Your task to perform on an android device: open wifi settings Image 0: 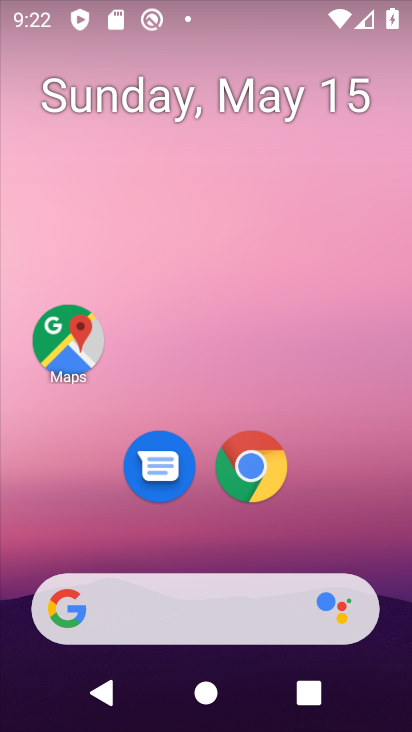
Step 0: drag from (335, 547) to (264, 116)
Your task to perform on an android device: open wifi settings Image 1: 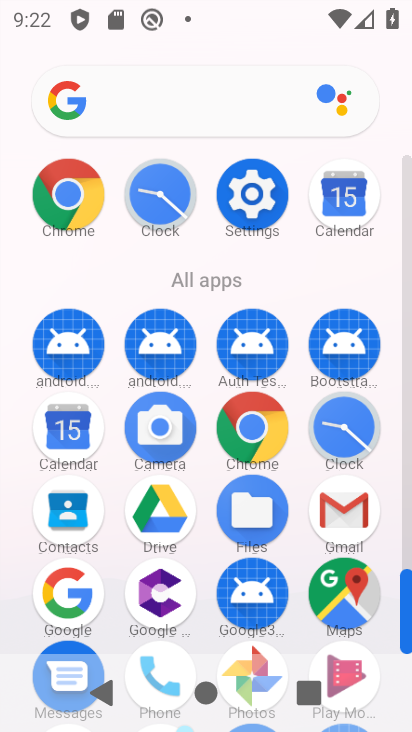
Step 1: click (256, 188)
Your task to perform on an android device: open wifi settings Image 2: 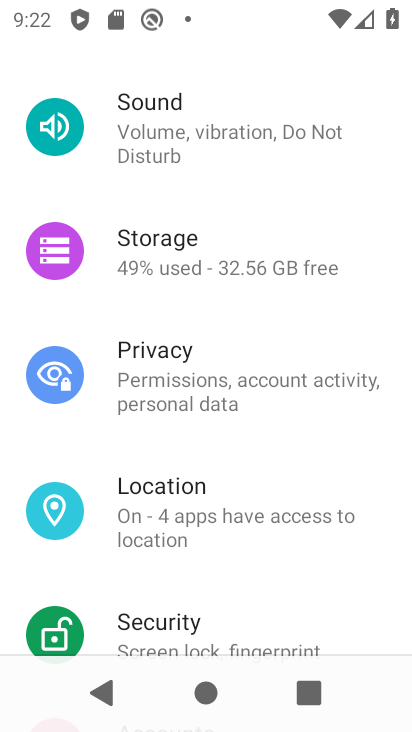
Step 2: drag from (247, 585) to (211, 52)
Your task to perform on an android device: open wifi settings Image 3: 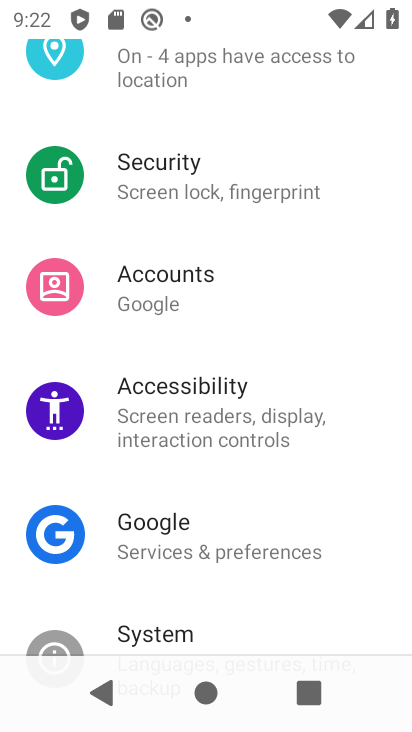
Step 3: drag from (214, 91) to (404, 721)
Your task to perform on an android device: open wifi settings Image 4: 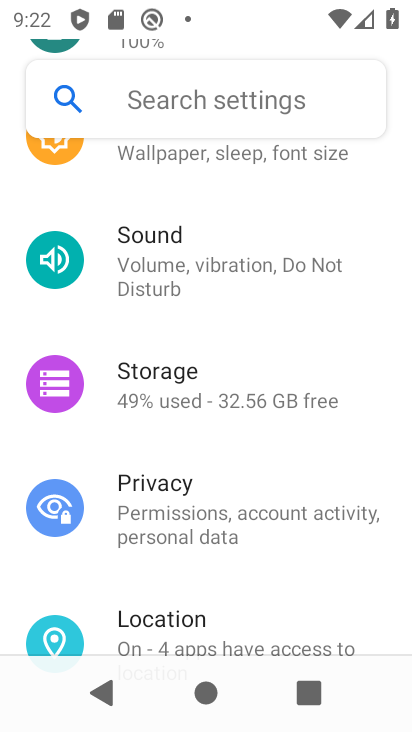
Step 4: drag from (253, 186) to (233, 625)
Your task to perform on an android device: open wifi settings Image 5: 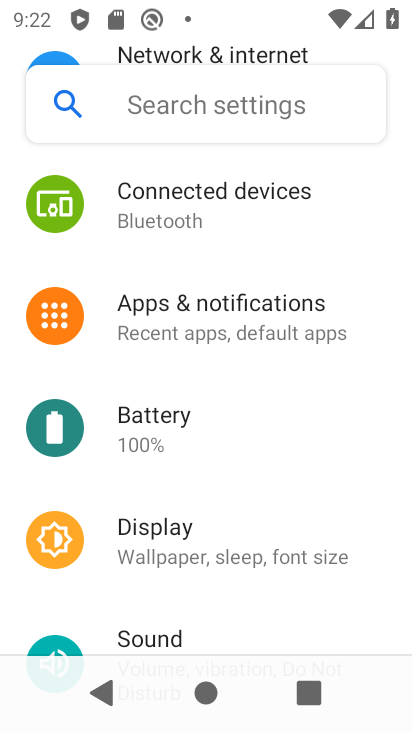
Step 5: drag from (166, 202) to (201, 541)
Your task to perform on an android device: open wifi settings Image 6: 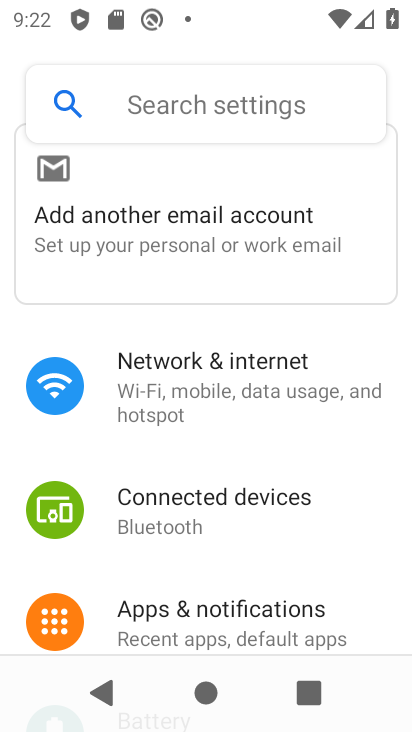
Step 6: click (146, 363)
Your task to perform on an android device: open wifi settings Image 7: 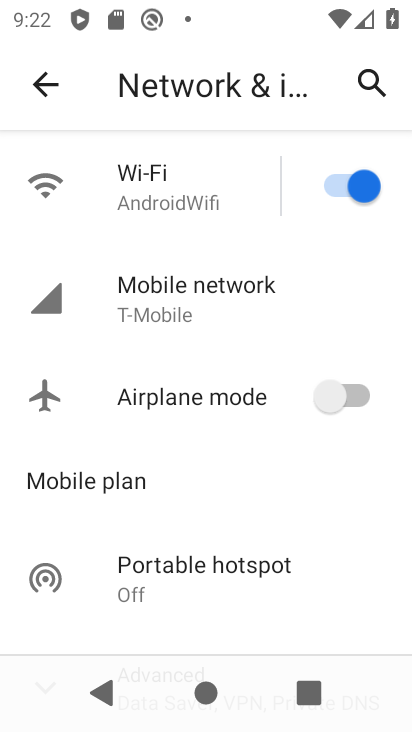
Step 7: click (148, 200)
Your task to perform on an android device: open wifi settings Image 8: 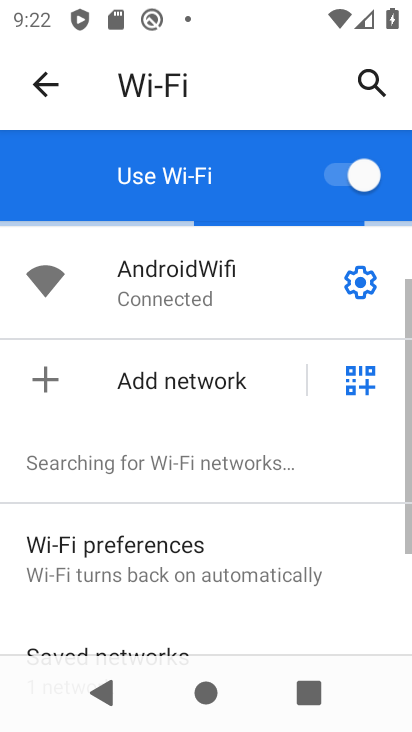
Step 8: click (363, 285)
Your task to perform on an android device: open wifi settings Image 9: 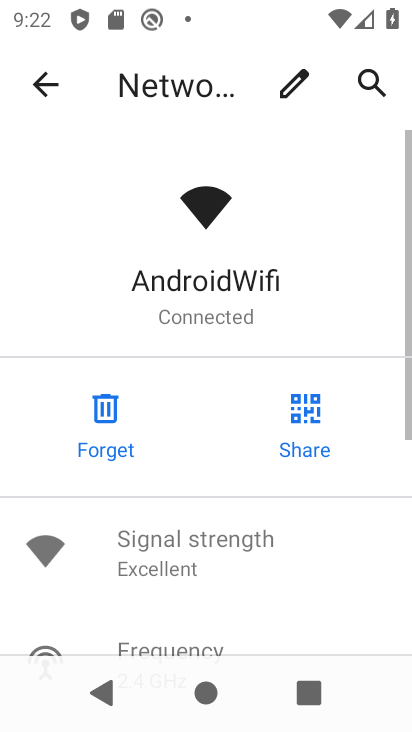
Step 9: task complete